Your task to perform on an android device: Open notification settings Image 0: 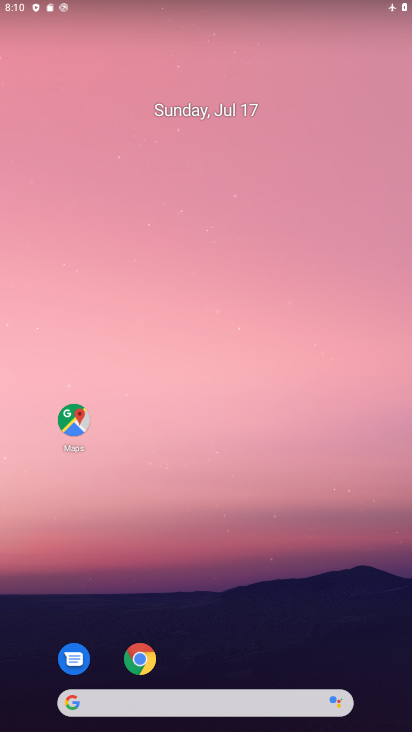
Step 0: drag from (221, 701) to (188, 122)
Your task to perform on an android device: Open notification settings Image 1: 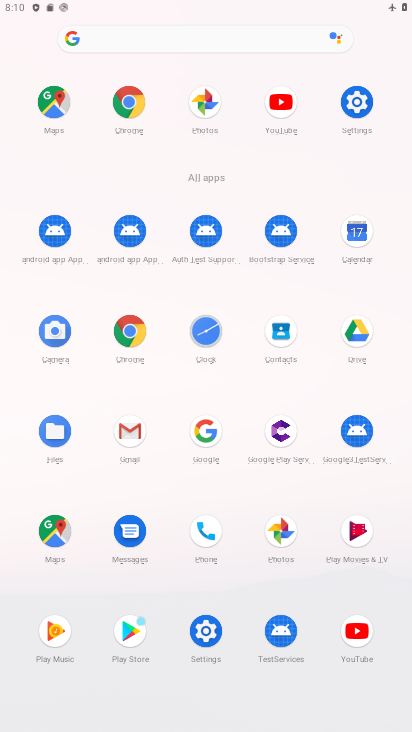
Step 1: click (359, 102)
Your task to perform on an android device: Open notification settings Image 2: 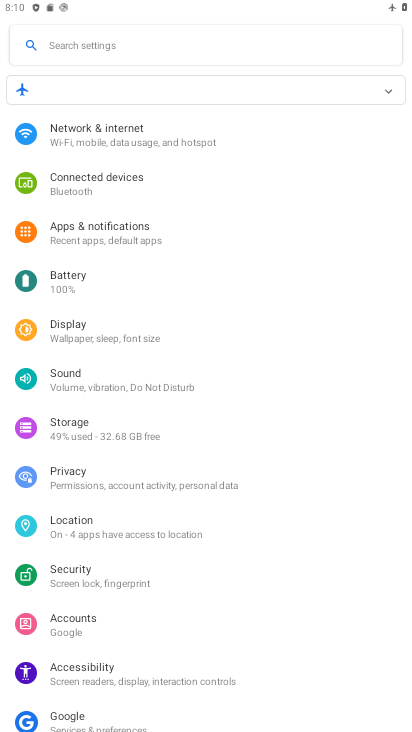
Step 2: click (108, 230)
Your task to perform on an android device: Open notification settings Image 3: 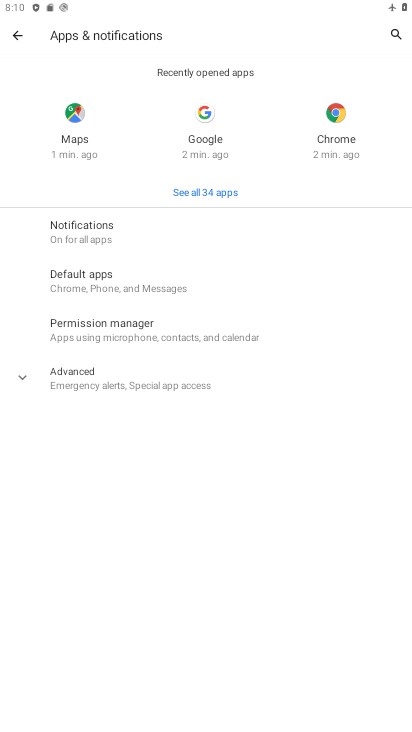
Step 3: click (88, 235)
Your task to perform on an android device: Open notification settings Image 4: 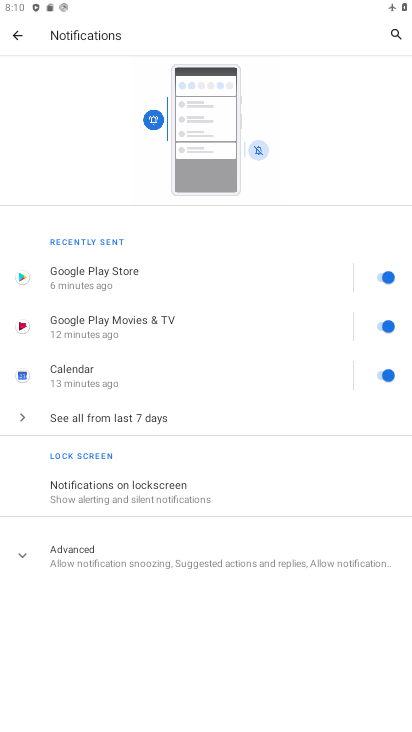
Step 4: task complete